Your task to perform on an android device: allow notifications from all sites in the chrome app Image 0: 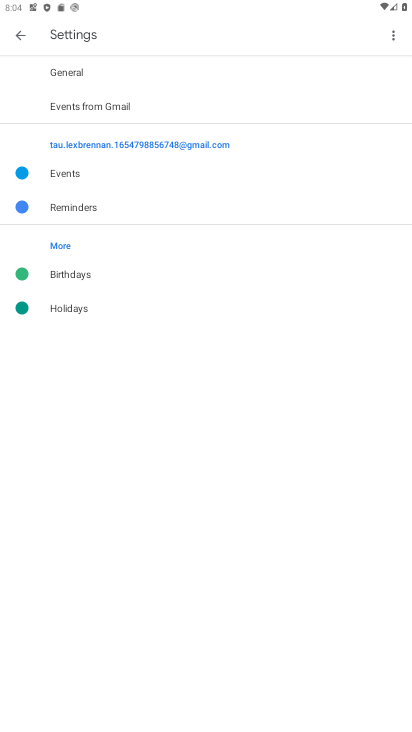
Step 0: press home button
Your task to perform on an android device: allow notifications from all sites in the chrome app Image 1: 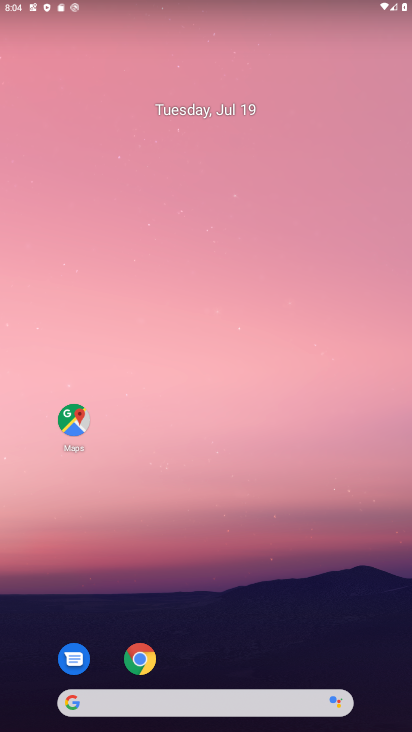
Step 1: click (143, 655)
Your task to perform on an android device: allow notifications from all sites in the chrome app Image 2: 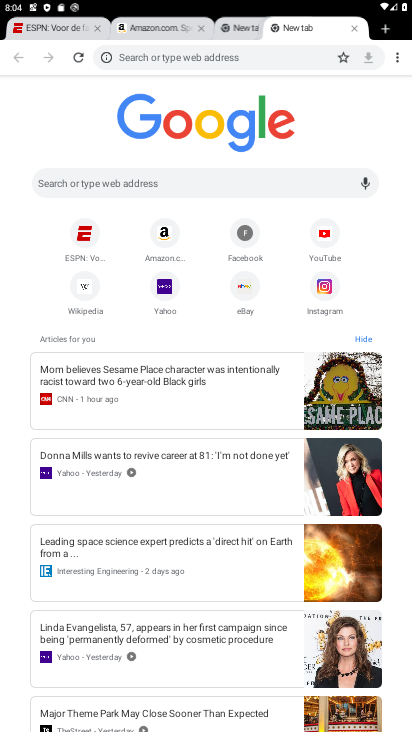
Step 2: click (397, 52)
Your task to perform on an android device: allow notifications from all sites in the chrome app Image 3: 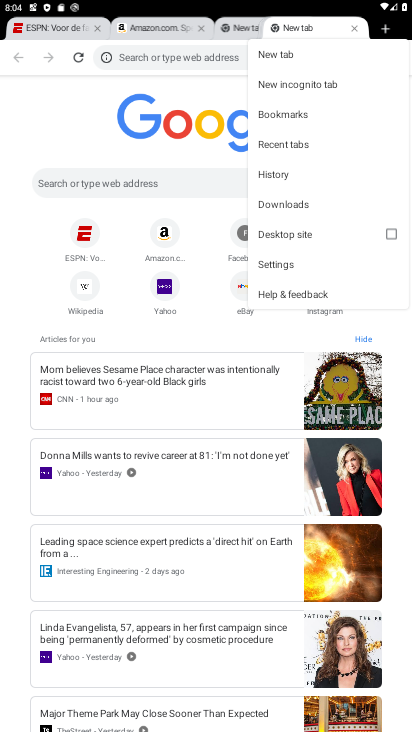
Step 3: click (267, 255)
Your task to perform on an android device: allow notifications from all sites in the chrome app Image 4: 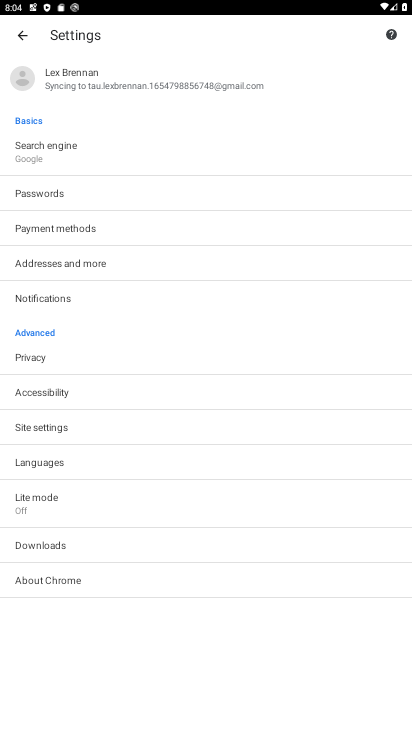
Step 4: click (44, 430)
Your task to perform on an android device: allow notifications from all sites in the chrome app Image 5: 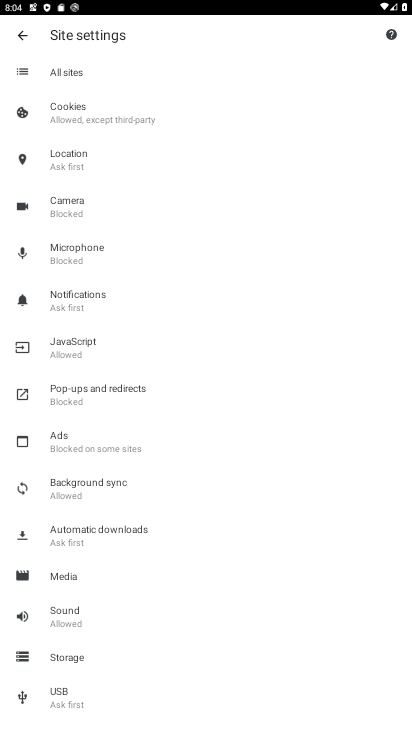
Step 5: click (64, 294)
Your task to perform on an android device: allow notifications from all sites in the chrome app Image 6: 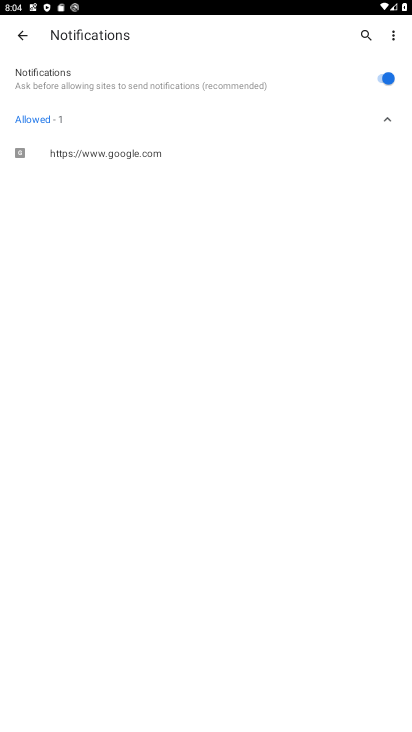
Step 6: task complete